Your task to perform on an android device: turn notification dots off Image 0: 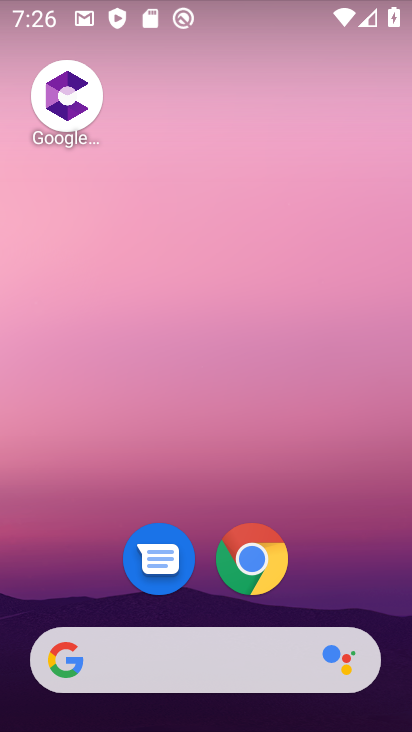
Step 0: drag from (357, 525) to (244, 0)
Your task to perform on an android device: turn notification dots off Image 1: 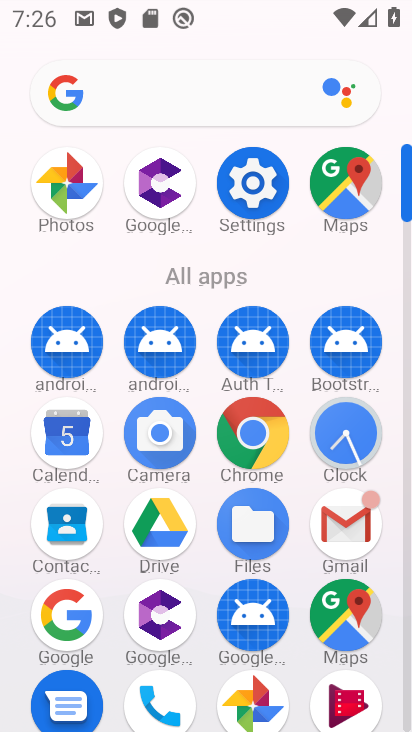
Step 1: click (255, 181)
Your task to perform on an android device: turn notification dots off Image 2: 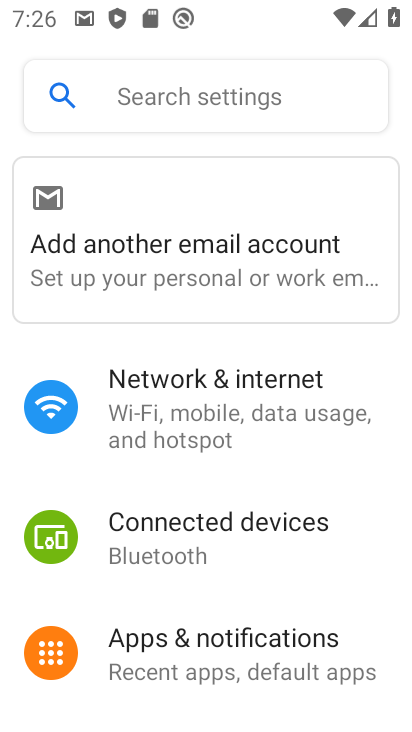
Step 2: drag from (213, 473) to (246, 347)
Your task to perform on an android device: turn notification dots off Image 3: 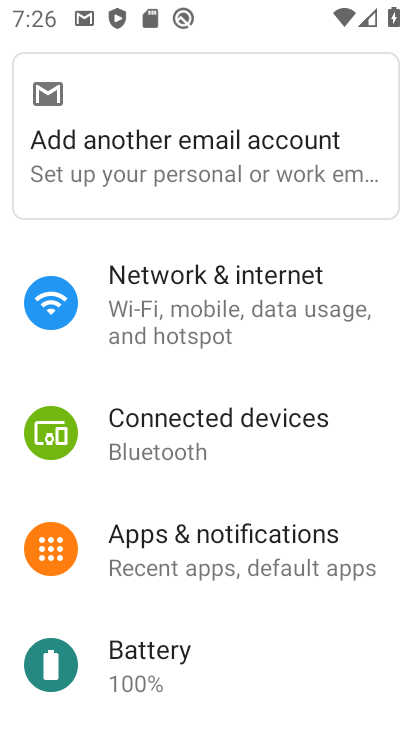
Step 3: drag from (197, 505) to (286, 402)
Your task to perform on an android device: turn notification dots off Image 4: 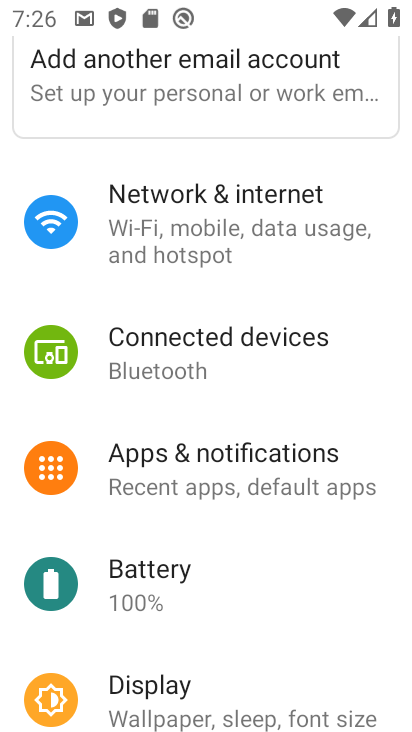
Step 4: click (301, 434)
Your task to perform on an android device: turn notification dots off Image 5: 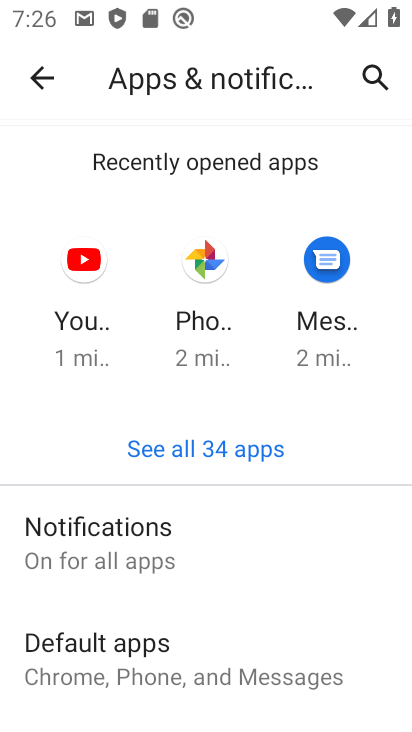
Step 5: click (149, 538)
Your task to perform on an android device: turn notification dots off Image 6: 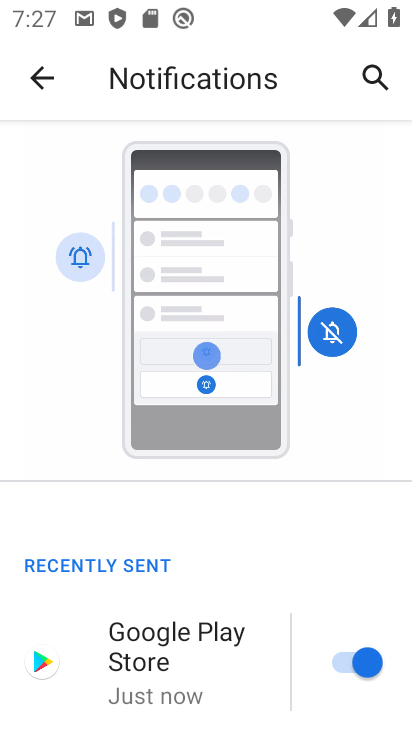
Step 6: drag from (188, 533) to (320, 265)
Your task to perform on an android device: turn notification dots off Image 7: 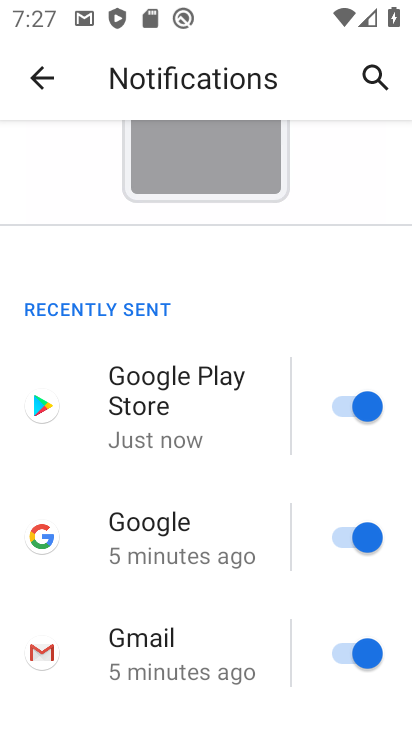
Step 7: drag from (201, 488) to (283, 374)
Your task to perform on an android device: turn notification dots off Image 8: 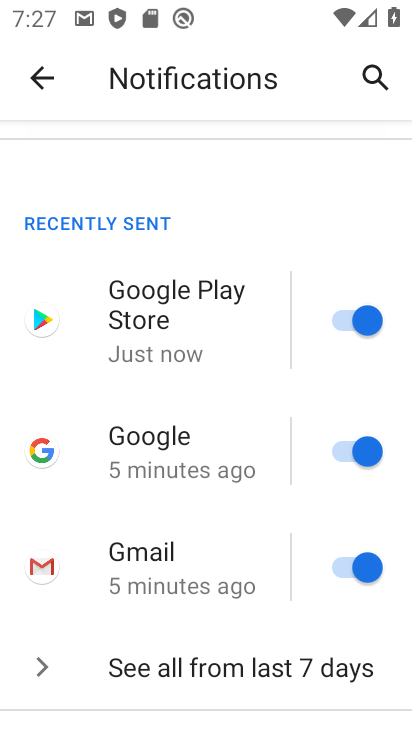
Step 8: drag from (203, 517) to (264, 367)
Your task to perform on an android device: turn notification dots off Image 9: 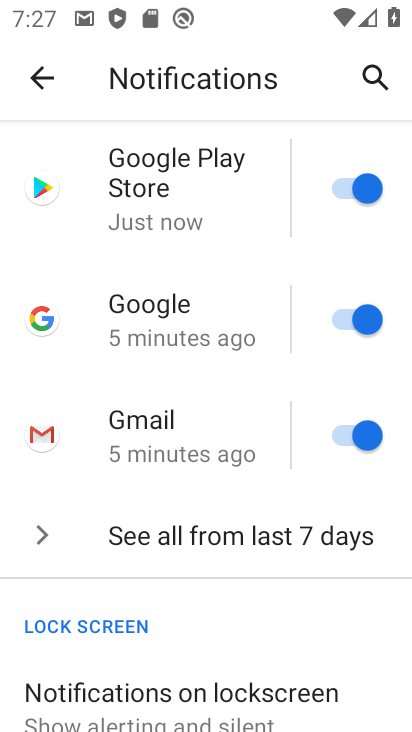
Step 9: drag from (191, 644) to (234, 441)
Your task to perform on an android device: turn notification dots off Image 10: 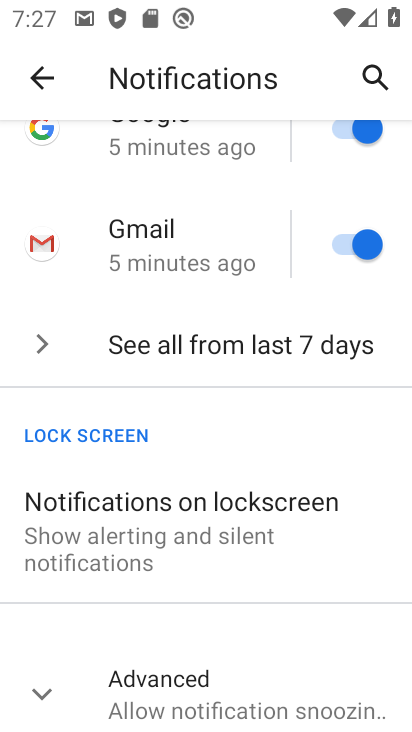
Step 10: click (208, 704)
Your task to perform on an android device: turn notification dots off Image 11: 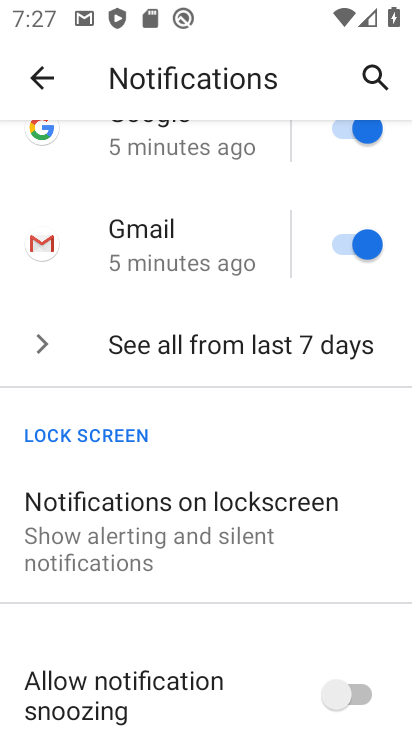
Step 11: drag from (216, 626) to (201, 400)
Your task to perform on an android device: turn notification dots off Image 12: 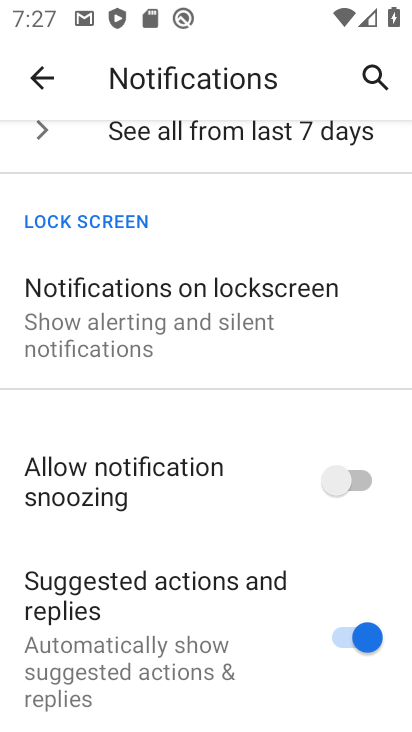
Step 12: drag from (196, 532) to (171, 364)
Your task to perform on an android device: turn notification dots off Image 13: 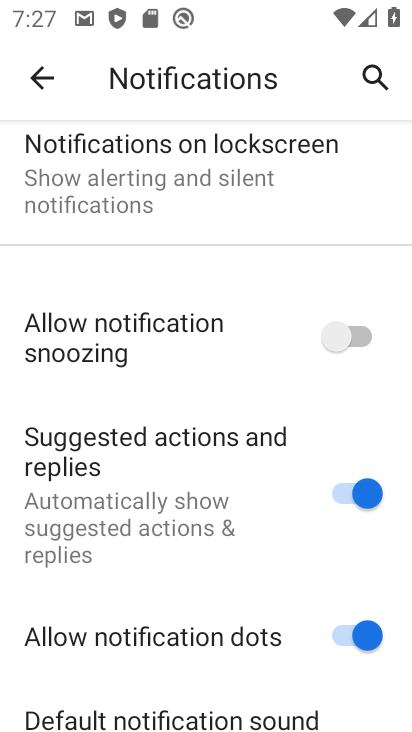
Step 13: click (357, 634)
Your task to perform on an android device: turn notification dots off Image 14: 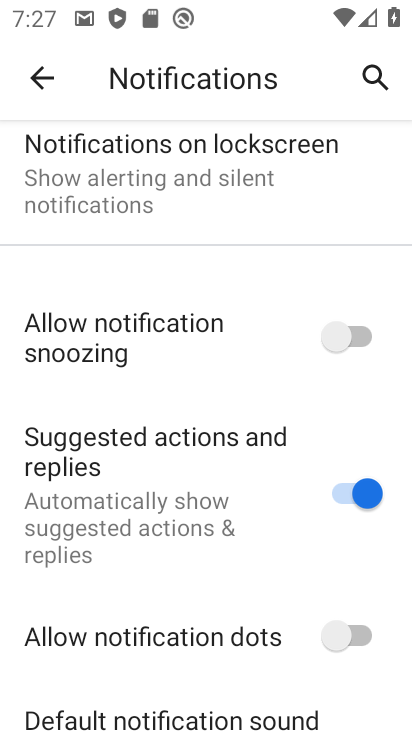
Step 14: task complete